Your task to perform on an android device: delete the emails in spam in the gmail app Image 0: 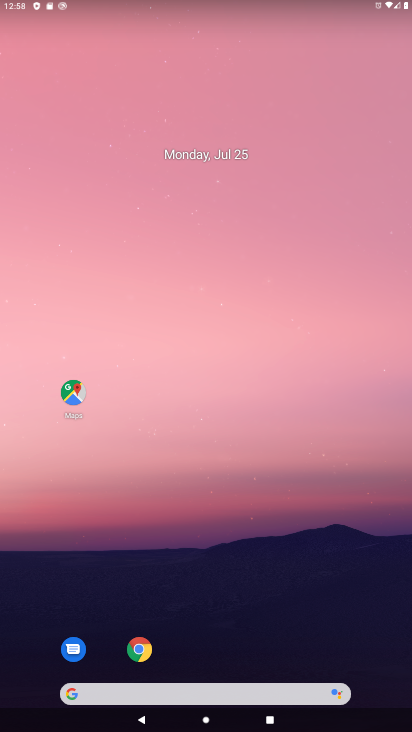
Step 0: press home button
Your task to perform on an android device: delete the emails in spam in the gmail app Image 1: 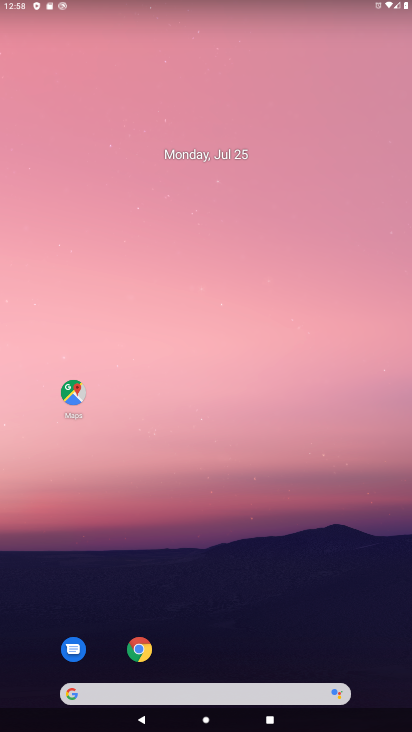
Step 1: drag from (271, 619) to (238, 81)
Your task to perform on an android device: delete the emails in spam in the gmail app Image 2: 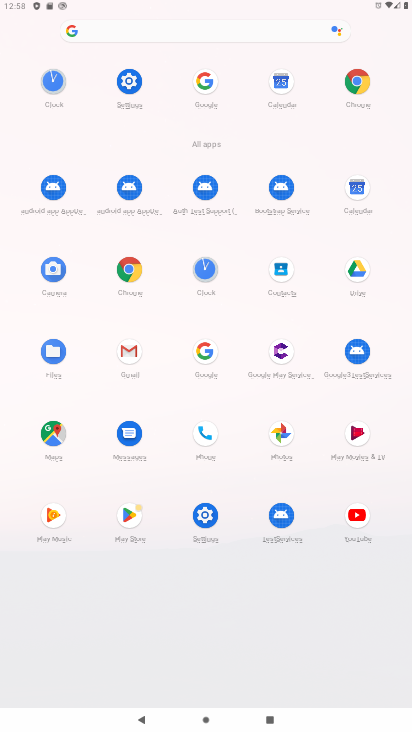
Step 2: click (129, 350)
Your task to perform on an android device: delete the emails in spam in the gmail app Image 3: 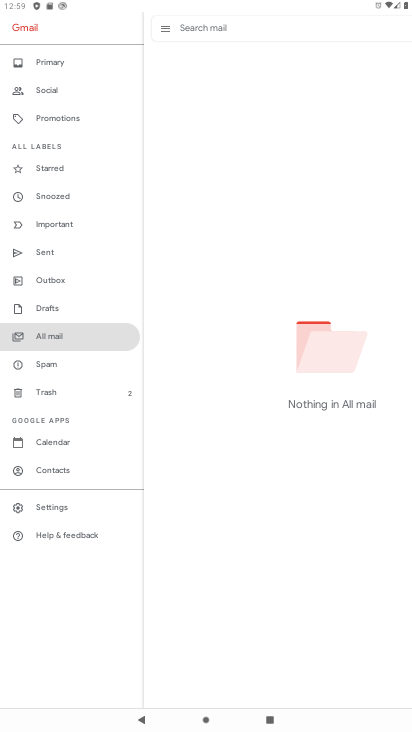
Step 3: click (63, 367)
Your task to perform on an android device: delete the emails in spam in the gmail app Image 4: 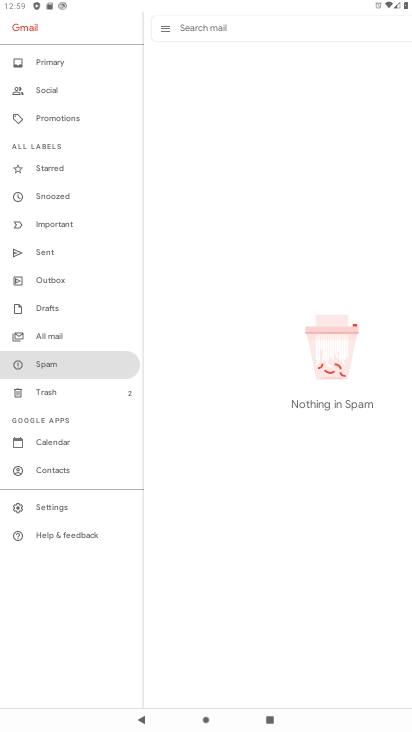
Step 4: task complete